Your task to perform on an android device: Open location settings Image 0: 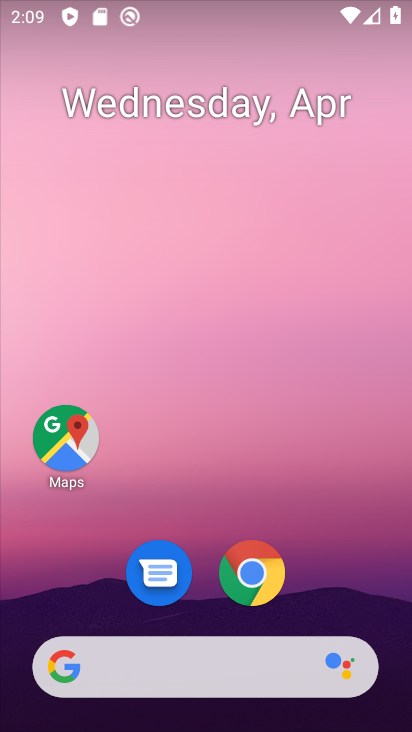
Step 0: drag from (352, 525) to (337, 106)
Your task to perform on an android device: Open location settings Image 1: 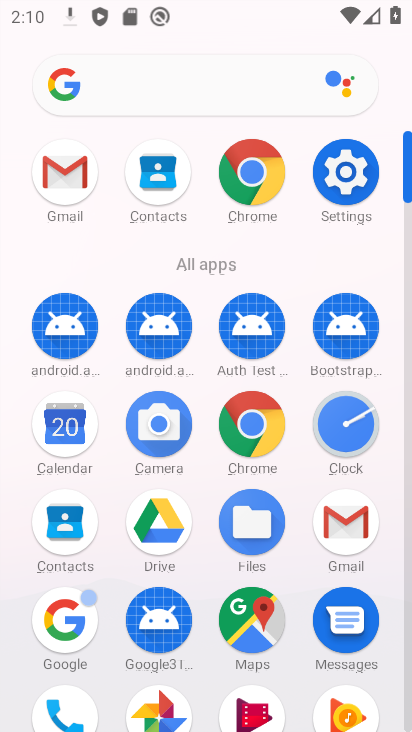
Step 1: click (340, 183)
Your task to perform on an android device: Open location settings Image 2: 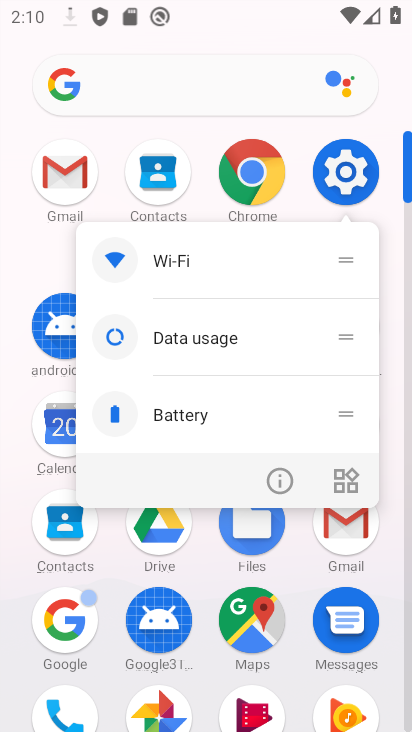
Step 2: click (352, 172)
Your task to perform on an android device: Open location settings Image 3: 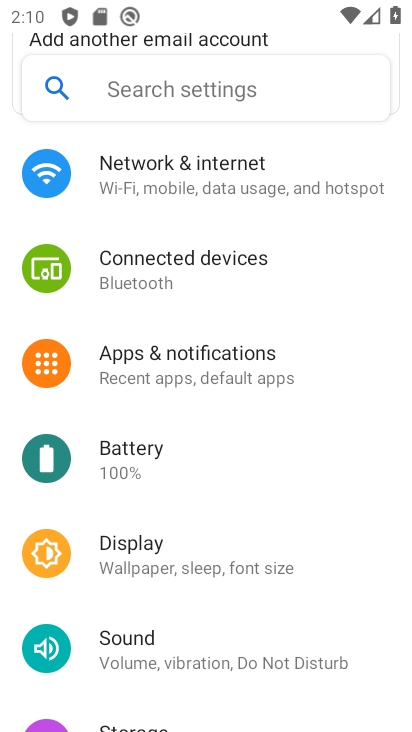
Step 3: drag from (372, 522) to (367, 381)
Your task to perform on an android device: Open location settings Image 4: 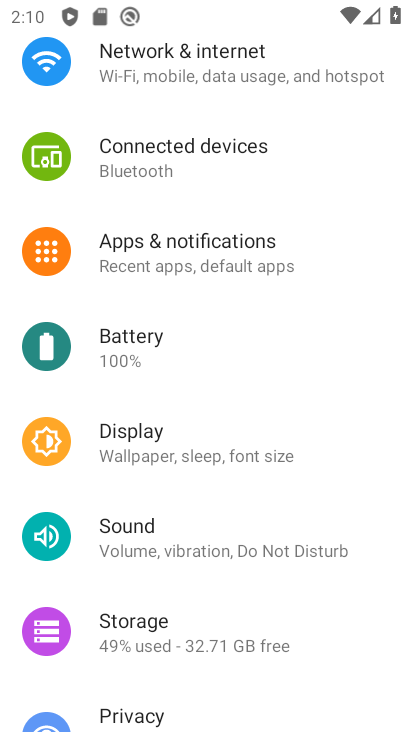
Step 4: drag from (369, 489) to (369, 367)
Your task to perform on an android device: Open location settings Image 5: 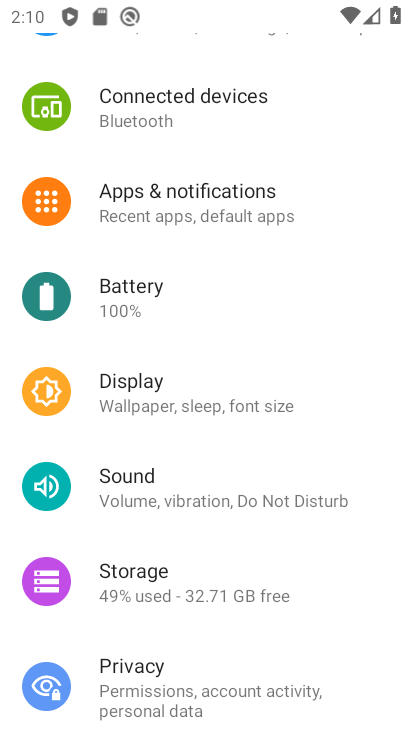
Step 5: drag from (374, 567) to (364, 393)
Your task to perform on an android device: Open location settings Image 6: 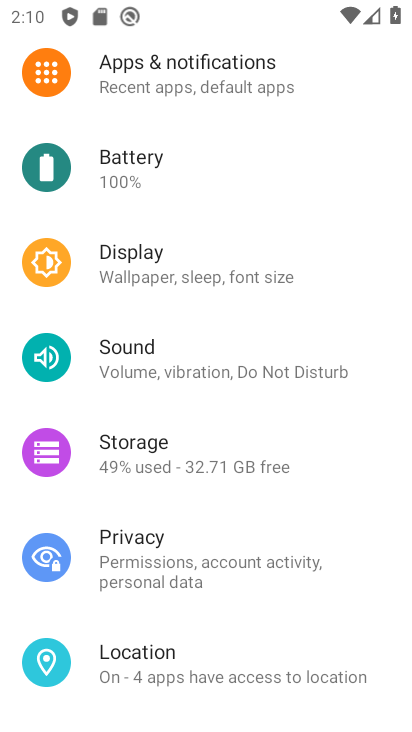
Step 6: drag from (373, 574) to (370, 395)
Your task to perform on an android device: Open location settings Image 7: 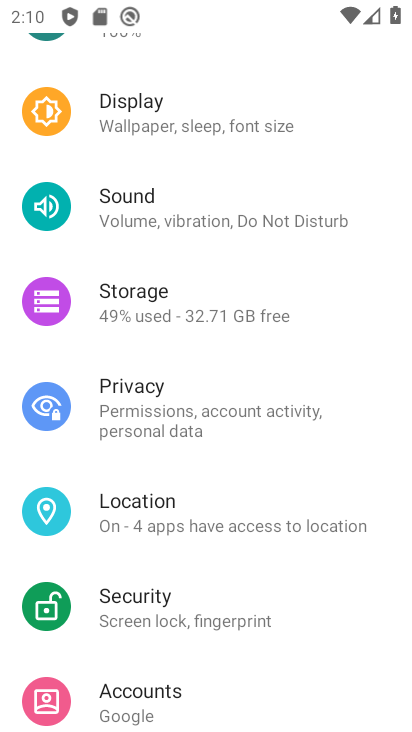
Step 7: drag from (372, 603) to (377, 397)
Your task to perform on an android device: Open location settings Image 8: 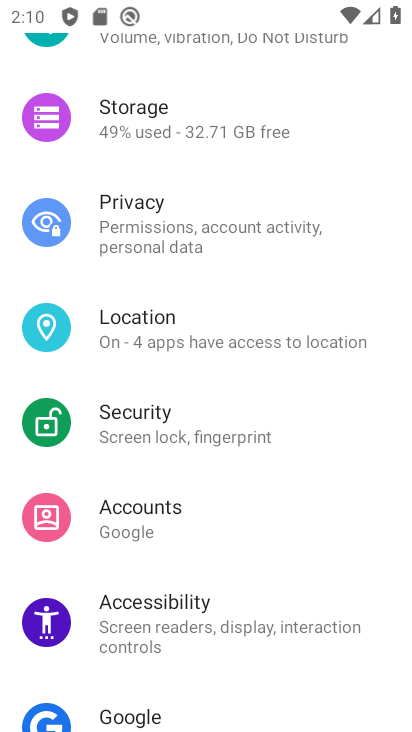
Step 8: click (154, 338)
Your task to perform on an android device: Open location settings Image 9: 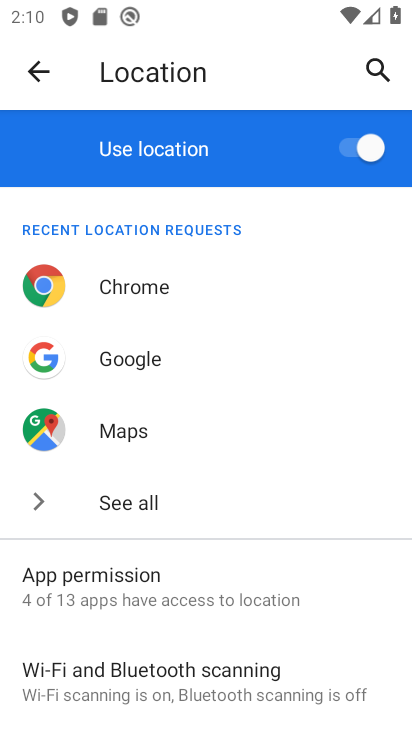
Step 9: task complete